Your task to perform on an android device: Go to settings Image 0: 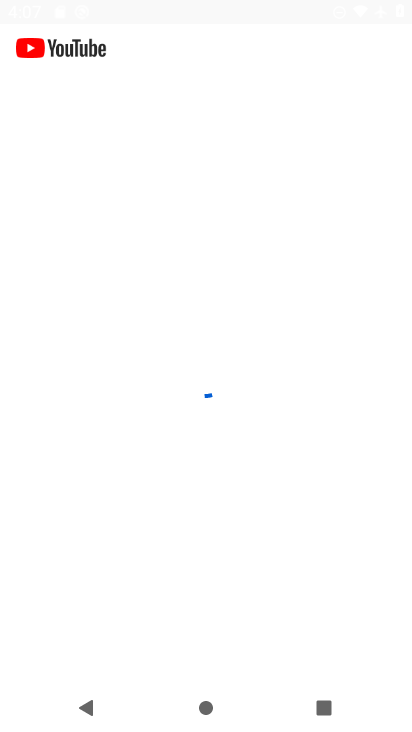
Step 0: drag from (395, 655) to (312, 295)
Your task to perform on an android device: Go to settings Image 1: 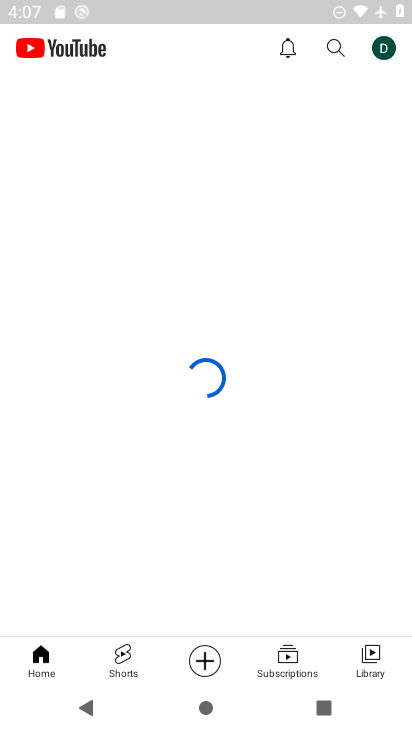
Step 1: press home button
Your task to perform on an android device: Go to settings Image 2: 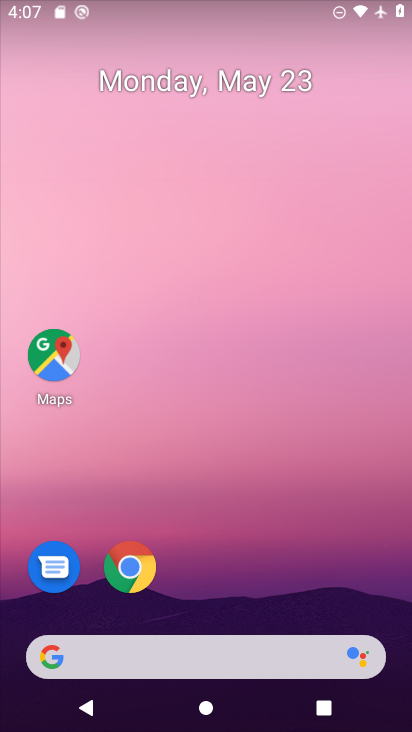
Step 2: drag from (396, 650) to (294, 123)
Your task to perform on an android device: Go to settings Image 3: 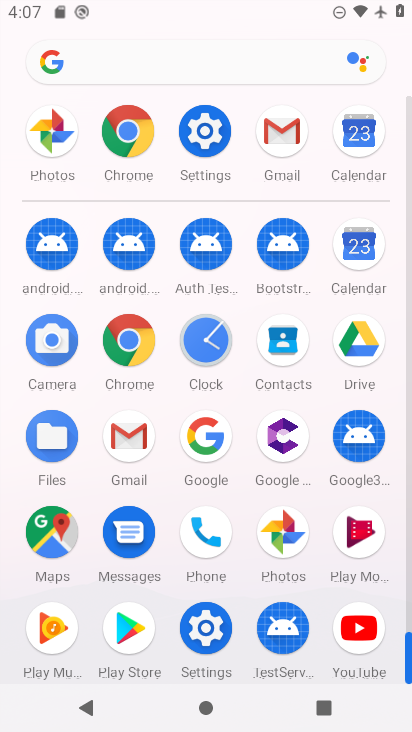
Step 3: click (208, 632)
Your task to perform on an android device: Go to settings Image 4: 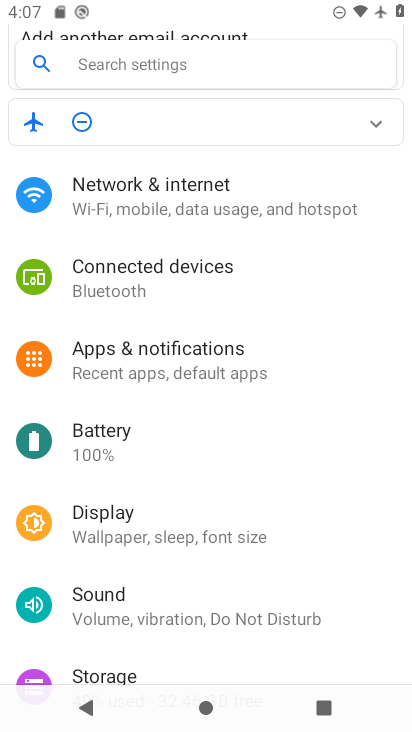
Step 4: task complete